Your task to perform on an android device: Open settings Image 0: 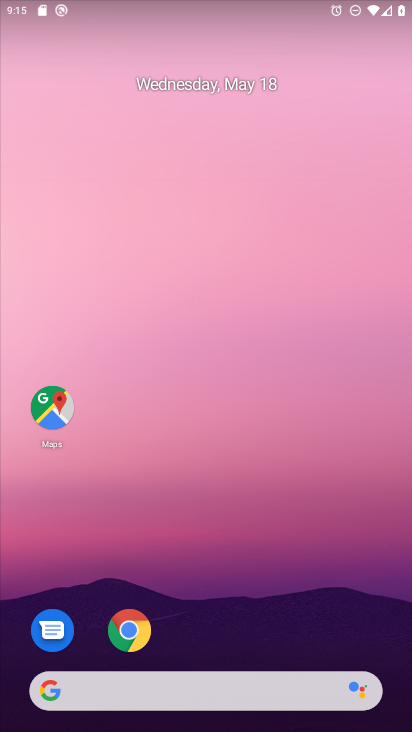
Step 0: drag from (185, 660) to (80, 10)
Your task to perform on an android device: Open settings Image 1: 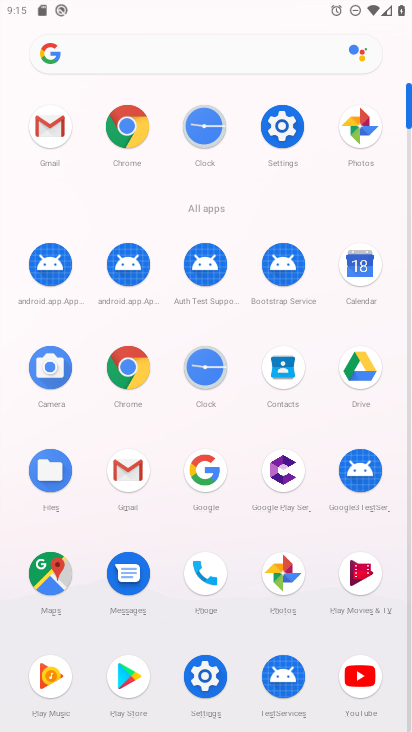
Step 1: click (286, 108)
Your task to perform on an android device: Open settings Image 2: 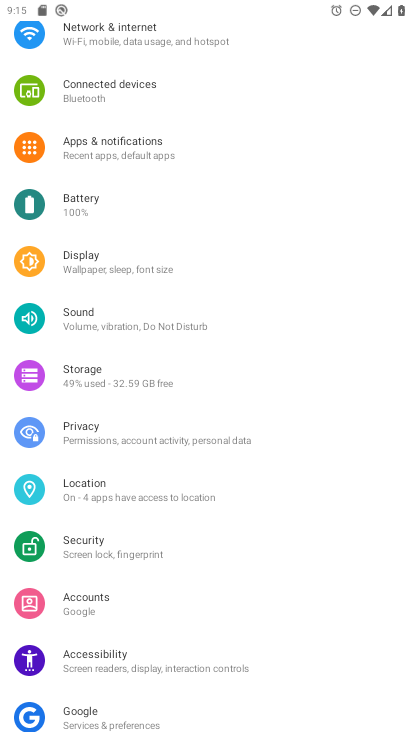
Step 2: task complete